Your task to perform on an android device: turn on wifi Image 0: 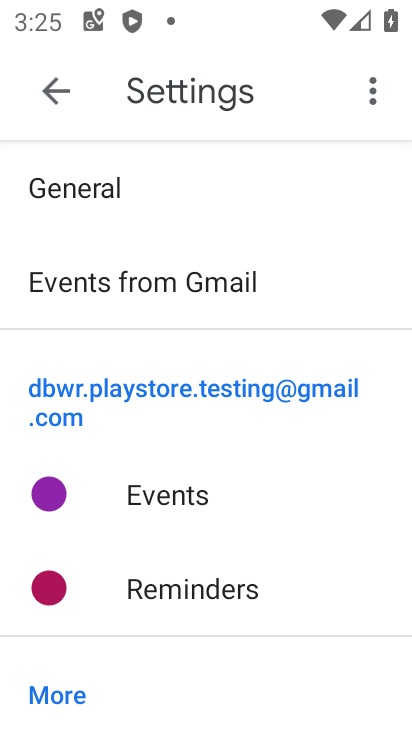
Step 0: press home button
Your task to perform on an android device: turn on wifi Image 1: 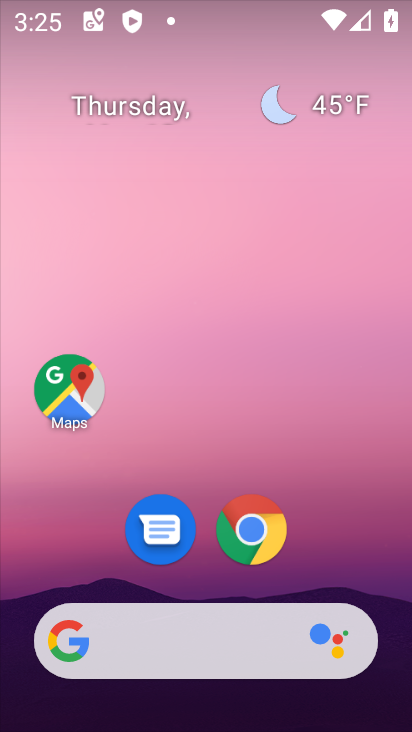
Step 1: drag from (328, 538) to (366, 83)
Your task to perform on an android device: turn on wifi Image 2: 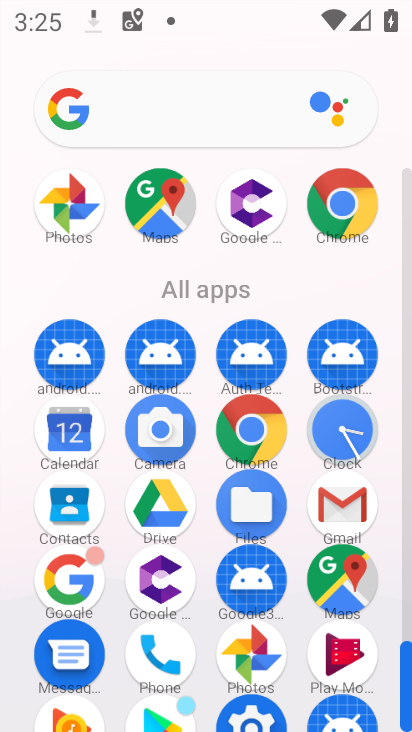
Step 2: drag from (400, 465) to (348, 173)
Your task to perform on an android device: turn on wifi Image 3: 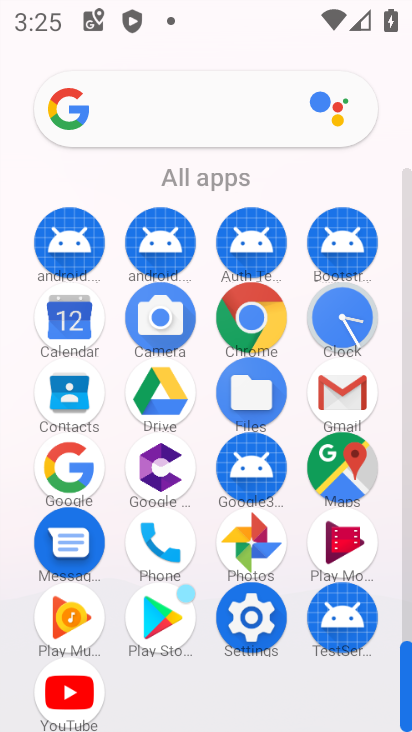
Step 3: click (257, 632)
Your task to perform on an android device: turn on wifi Image 4: 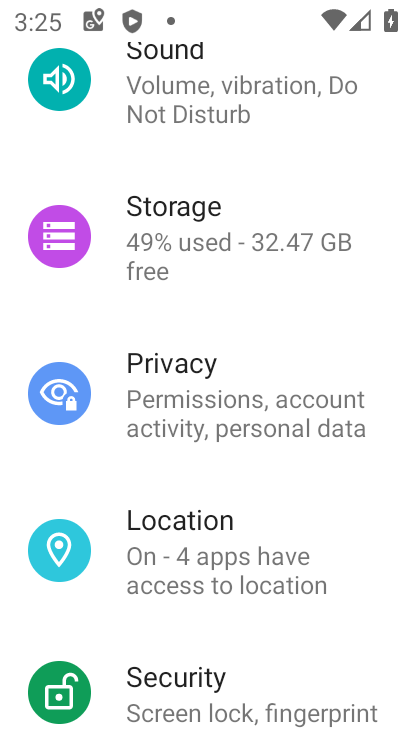
Step 4: drag from (250, 163) to (271, 574)
Your task to perform on an android device: turn on wifi Image 5: 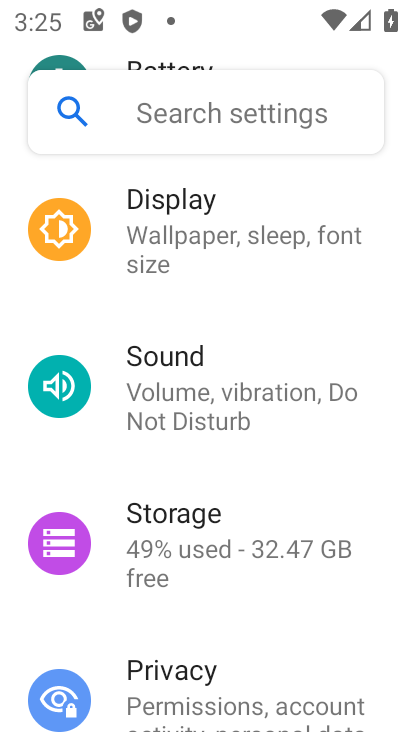
Step 5: drag from (249, 199) to (290, 619)
Your task to perform on an android device: turn on wifi Image 6: 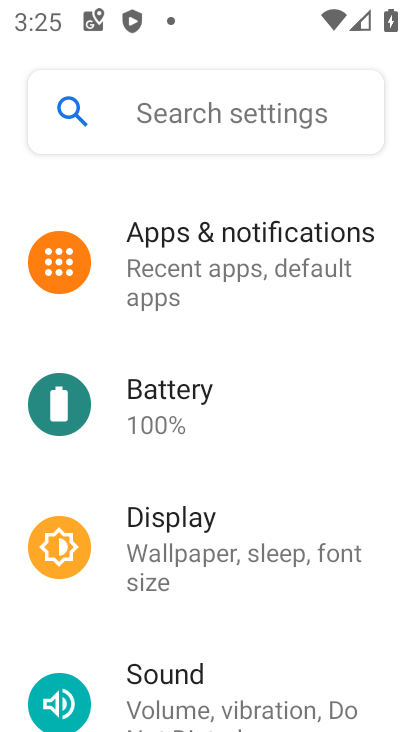
Step 6: drag from (243, 268) to (251, 692)
Your task to perform on an android device: turn on wifi Image 7: 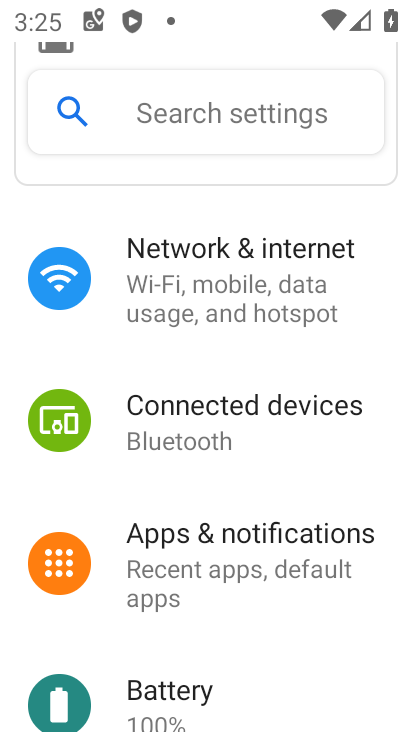
Step 7: drag from (209, 226) to (226, 648)
Your task to perform on an android device: turn on wifi Image 8: 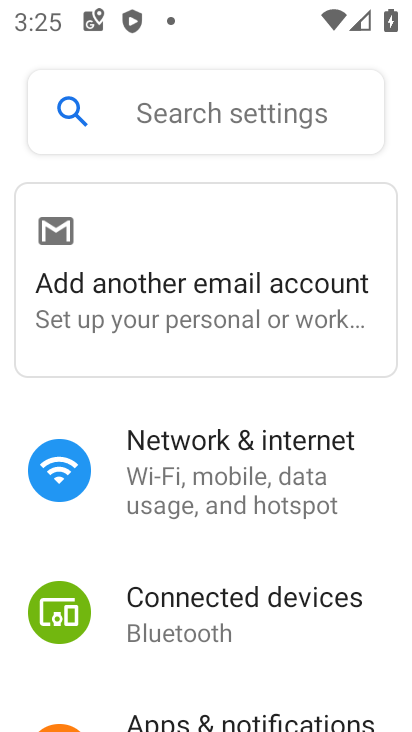
Step 8: click (204, 487)
Your task to perform on an android device: turn on wifi Image 9: 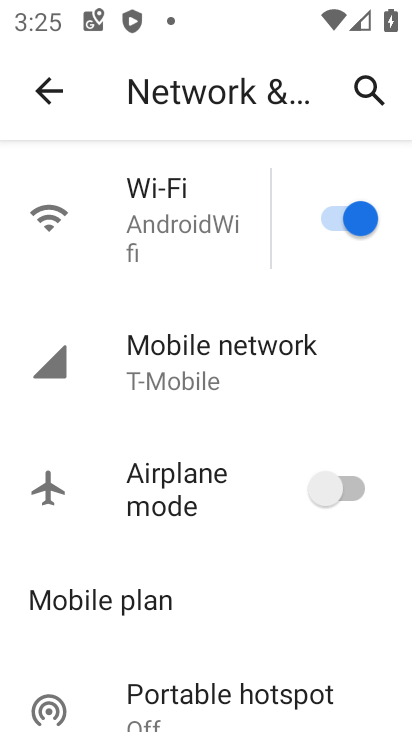
Step 9: task complete